Your task to perform on an android device: toggle notification dots Image 0: 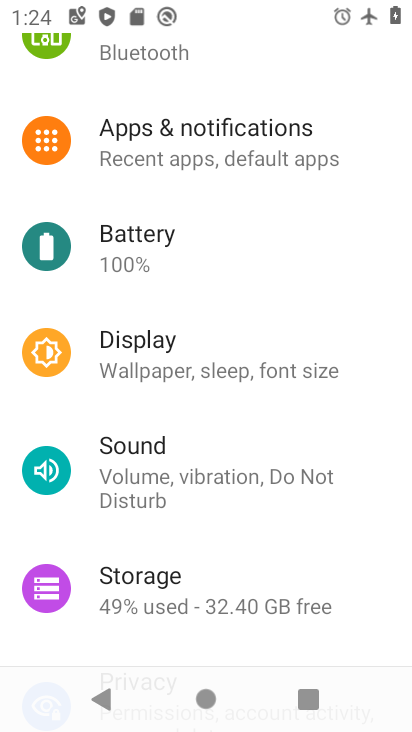
Step 0: press home button
Your task to perform on an android device: toggle notification dots Image 1: 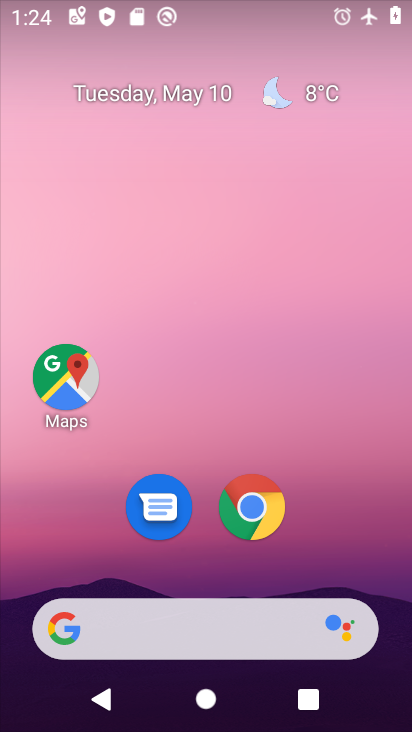
Step 1: drag from (236, 727) to (235, 253)
Your task to perform on an android device: toggle notification dots Image 2: 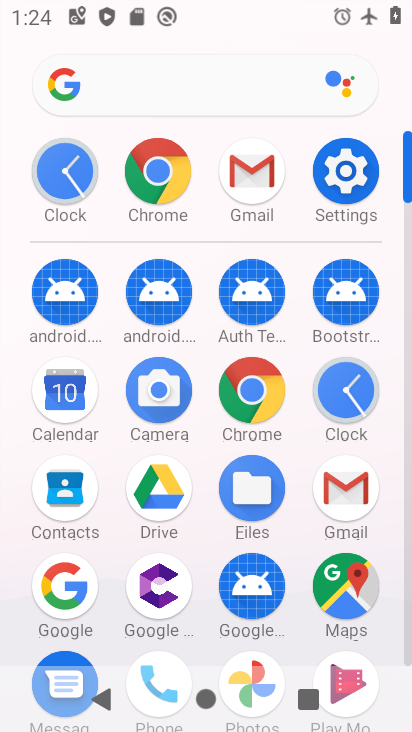
Step 2: click (345, 170)
Your task to perform on an android device: toggle notification dots Image 3: 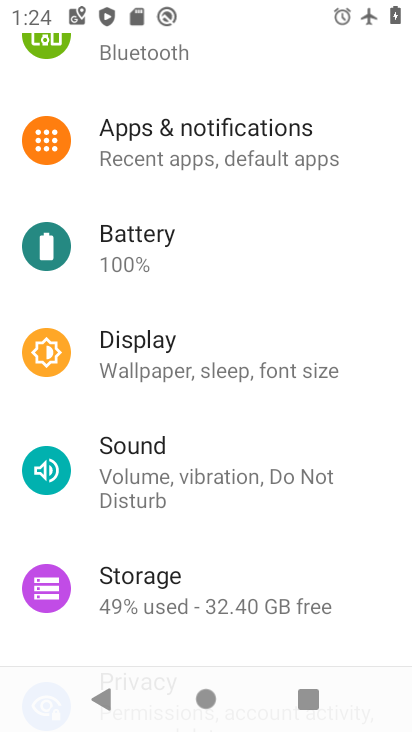
Step 3: click (154, 156)
Your task to perform on an android device: toggle notification dots Image 4: 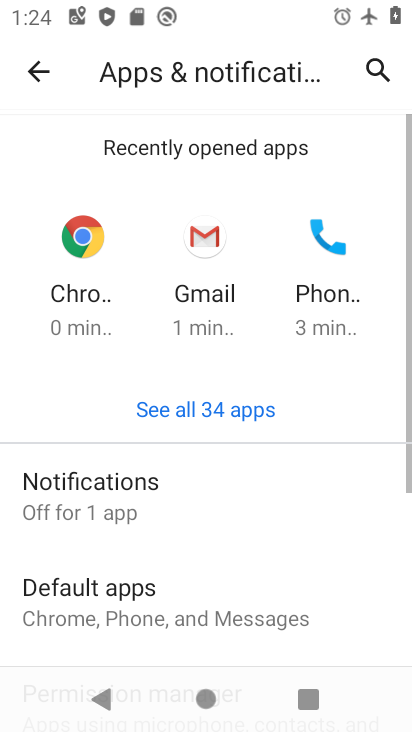
Step 4: click (106, 505)
Your task to perform on an android device: toggle notification dots Image 5: 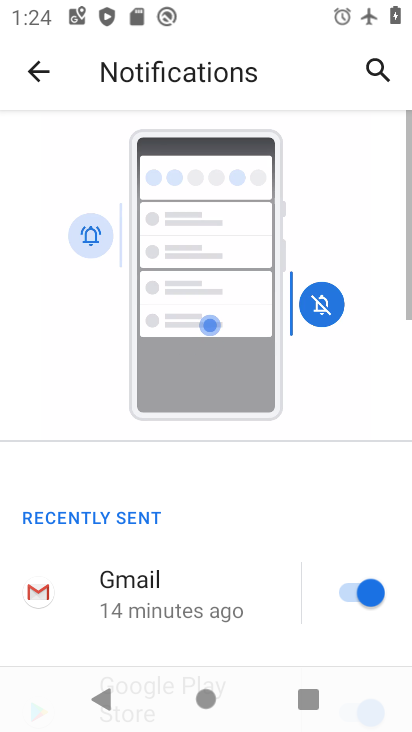
Step 5: drag from (205, 638) to (208, 210)
Your task to perform on an android device: toggle notification dots Image 6: 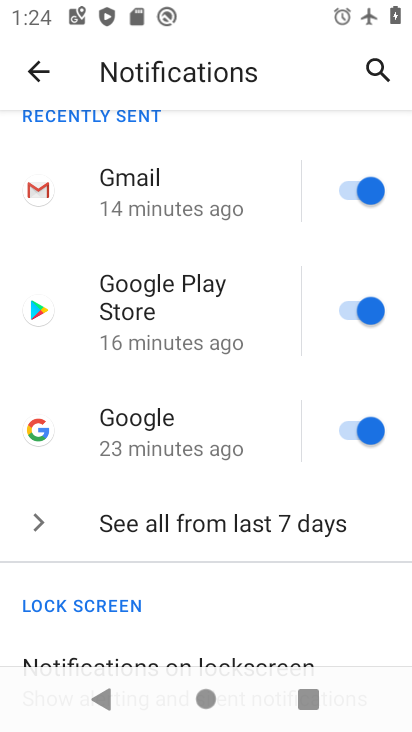
Step 6: drag from (214, 623) to (216, 333)
Your task to perform on an android device: toggle notification dots Image 7: 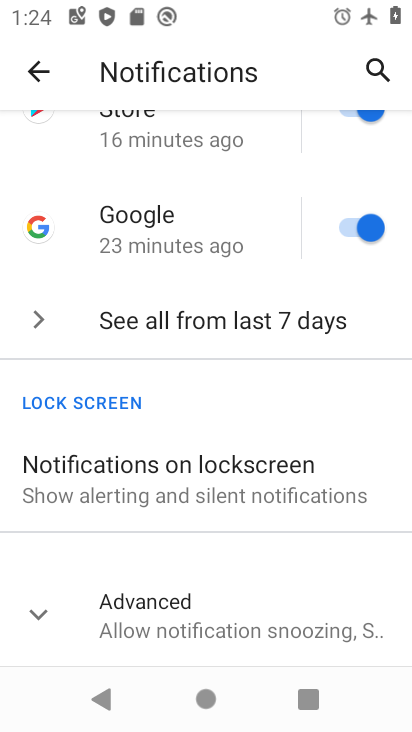
Step 7: click (171, 614)
Your task to perform on an android device: toggle notification dots Image 8: 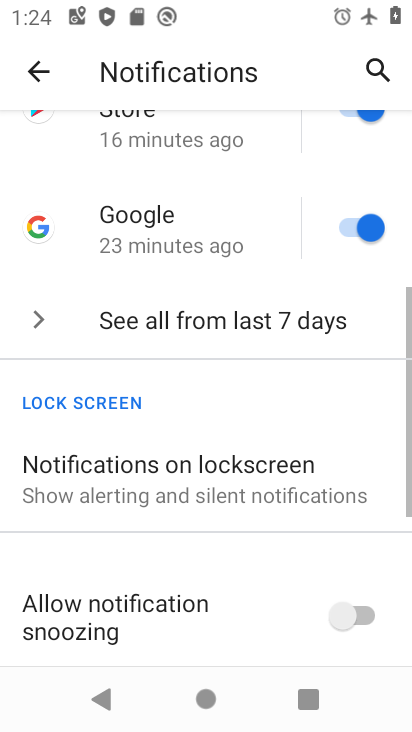
Step 8: drag from (252, 658) to (252, 411)
Your task to perform on an android device: toggle notification dots Image 9: 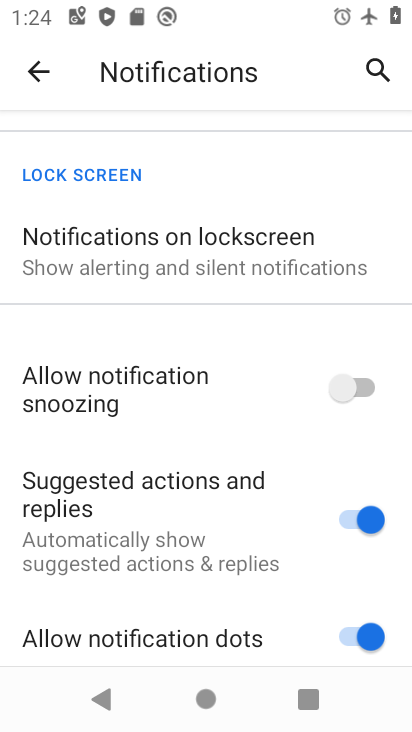
Step 9: click (345, 639)
Your task to perform on an android device: toggle notification dots Image 10: 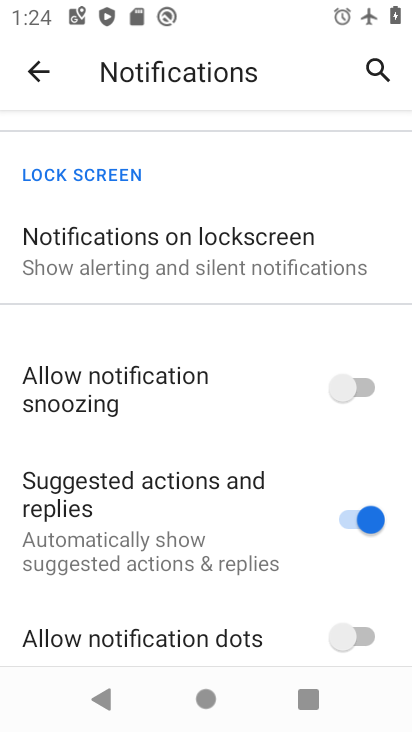
Step 10: task complete